Your task to perform on an android device: Go to calendar. Show me events next week Image 0: 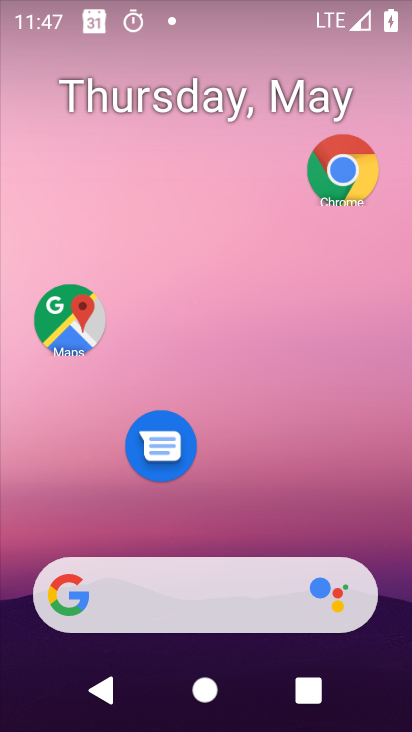
Step 0: drag from (272, 635) to (322, 11)
Your task to perform on an android device: Go to calendar. Show me events next week Image 1: 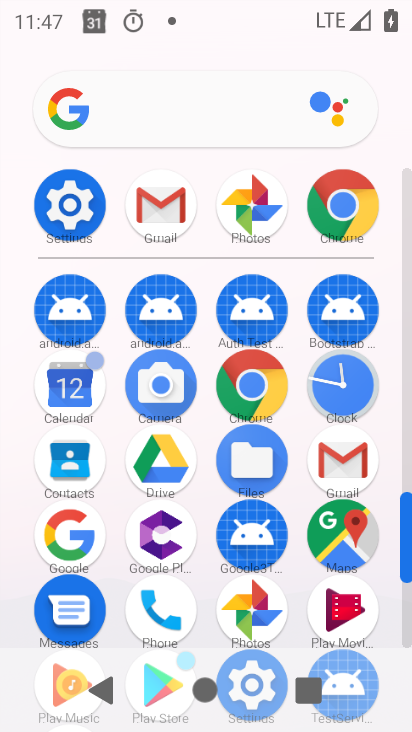
Step 1: click (85, 405)
Your task to perform on an android device: Go to calendar. Show me events next week Image 2: 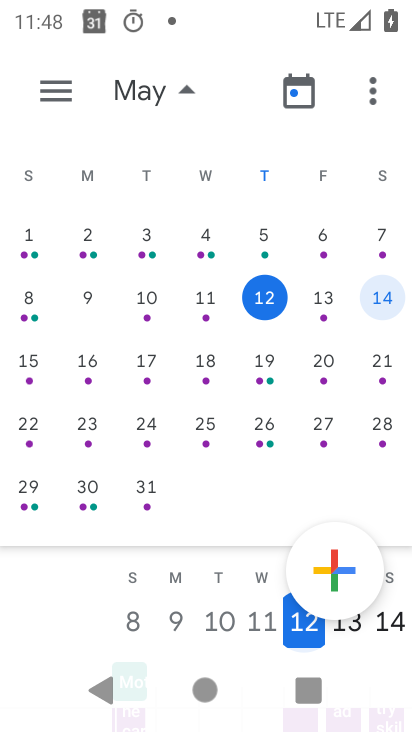
Step 2: click (258, 365)
Your task to perform on an android device: Go to calendar. Show me events next week Image 3: 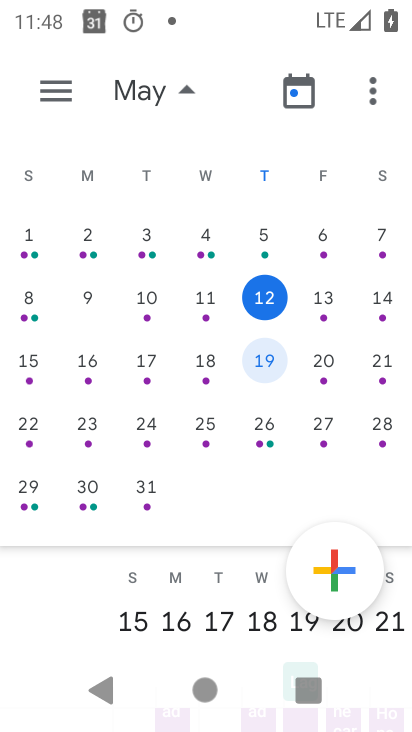
Step 3: click (58, 92)
Your task to perform on an android device: Go to calendar. Show me events next week Image 4: 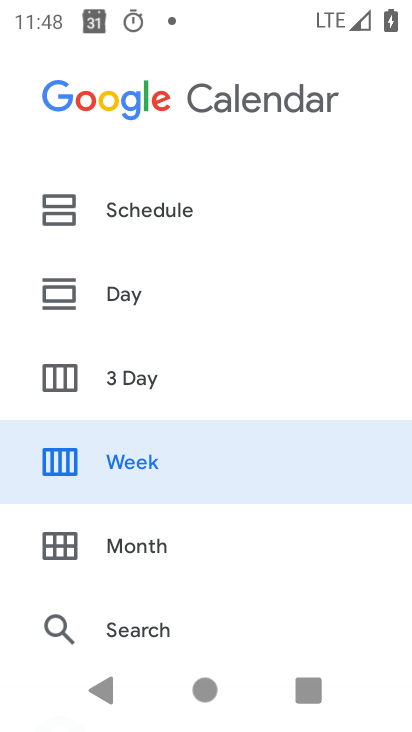
Step 4: click (155, 453)
Your task to perform on an android device: Go to calendar. Show me events next week Image 5: 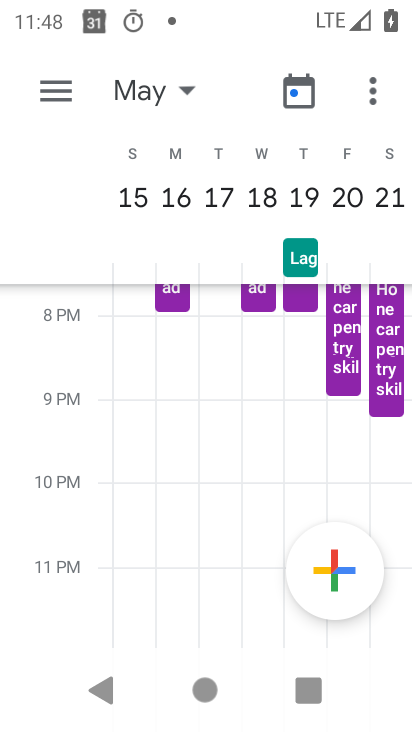
Step 5: task complete